Your task to perform on an android device: Open Maps and search for coffee Image 0: 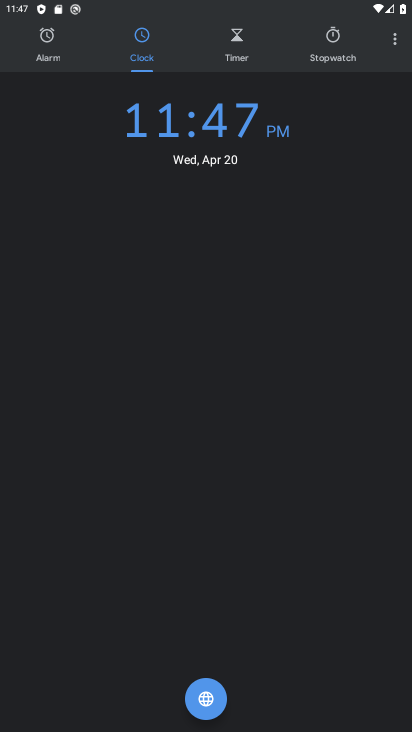
Step 0: press home button
Your task to perform on an android device: Open Maps and search for coffee Image 1: 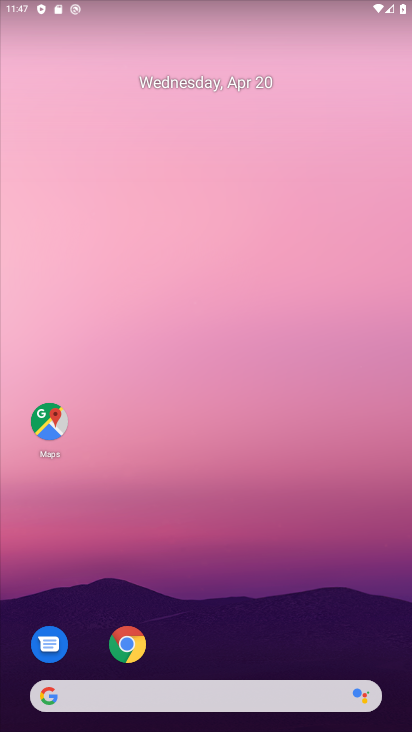
Step 1: click (48, 419)
Your task to perform on an android device: Open Maps and search for coffee Image 2: 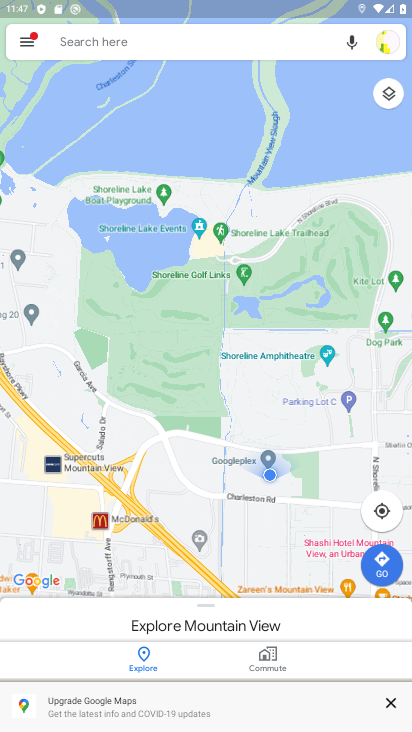
Step 2: click (94, 35)
Your task to perform on an android device: Open Maps and search for coffee Image 3: 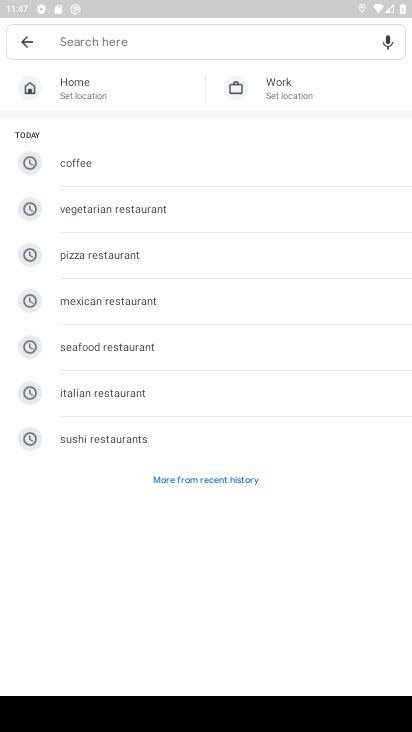
Step 3: type "coffee"
Your task to perform on an android device: Open Maps and search for coffee Image 4: 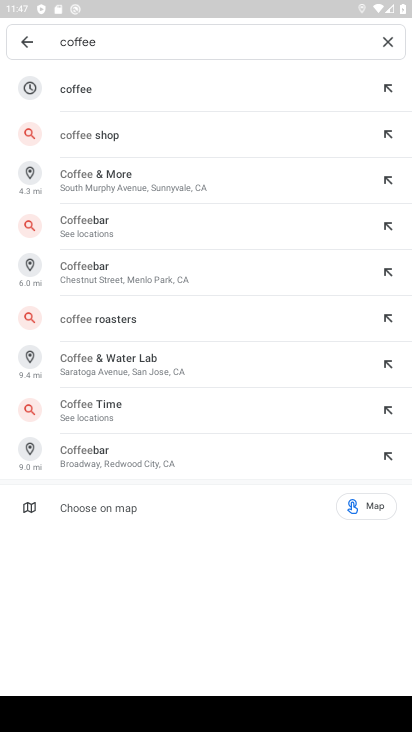
Step 4: click (71, 83)
Your task to perform on an android device: Open Maps and search for coffee Image 5: 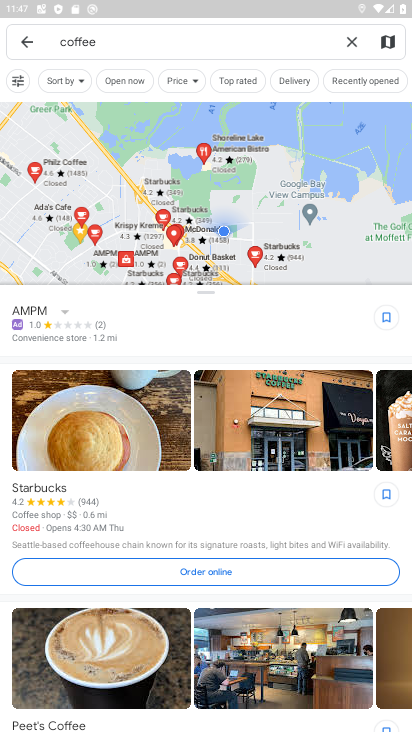
Step 5: drag from (205, 521) to (213, 181)
Your task to perform on an android device: Open Maps and search for coffee Image 6: 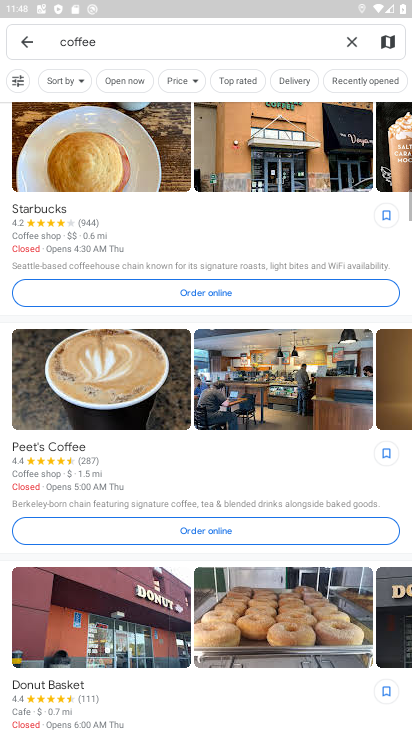
Step 6: drag from (216, 491) to (224, 148)
Your task to perform on an android device: Open Maps and search for coffee Image 7: 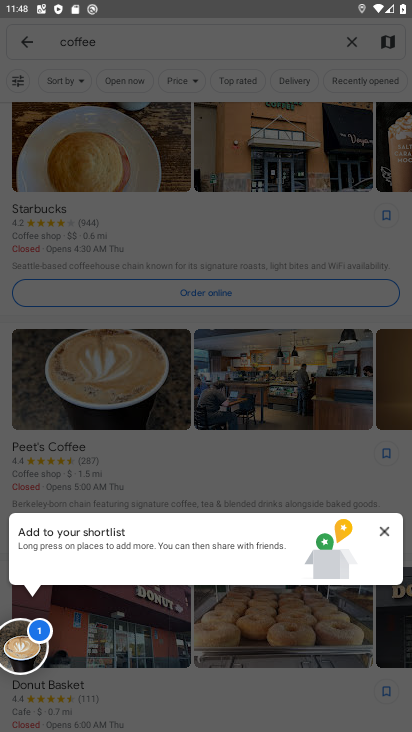
Step 7: click (384, 529)
Your task to perform on an android device: Open Maps and search for coffee Image 8: 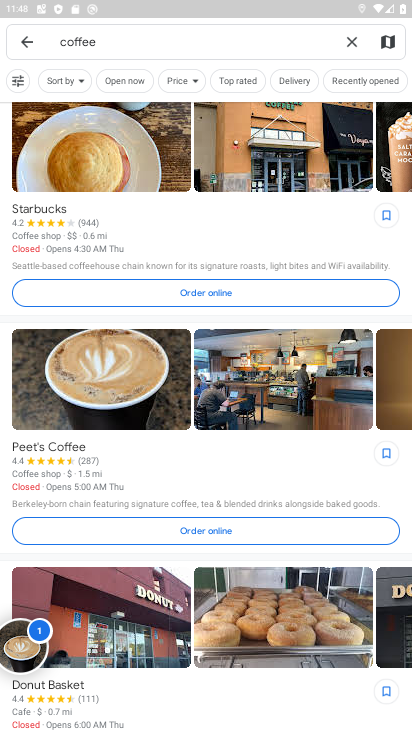
Step 8: task complete